Your task to perform on an android device: open app "Facebook Messenger" (install if not already installed) Image 0: 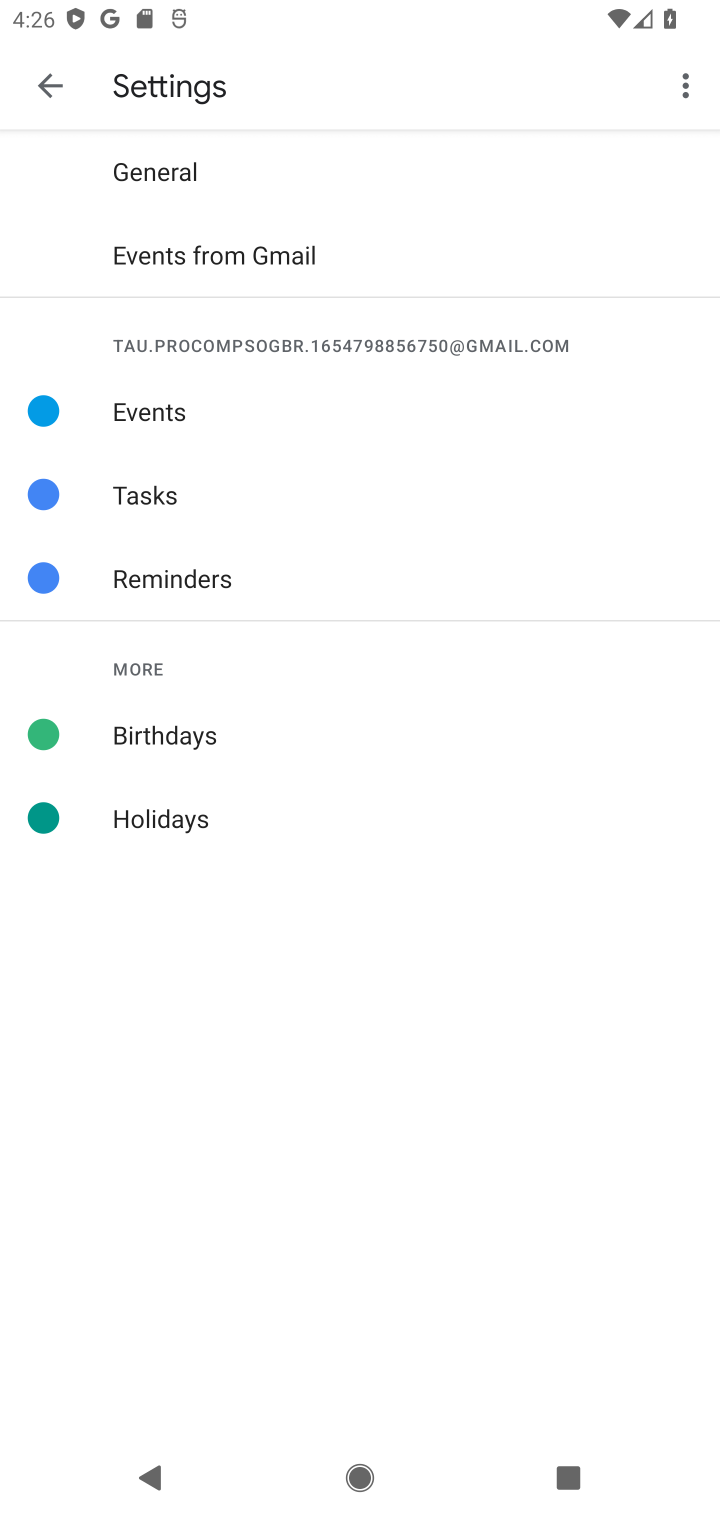
Step 0: press home button
Your task to perform on an android device: open app "Facebook Messenger" (install if not already installed) Image 1: 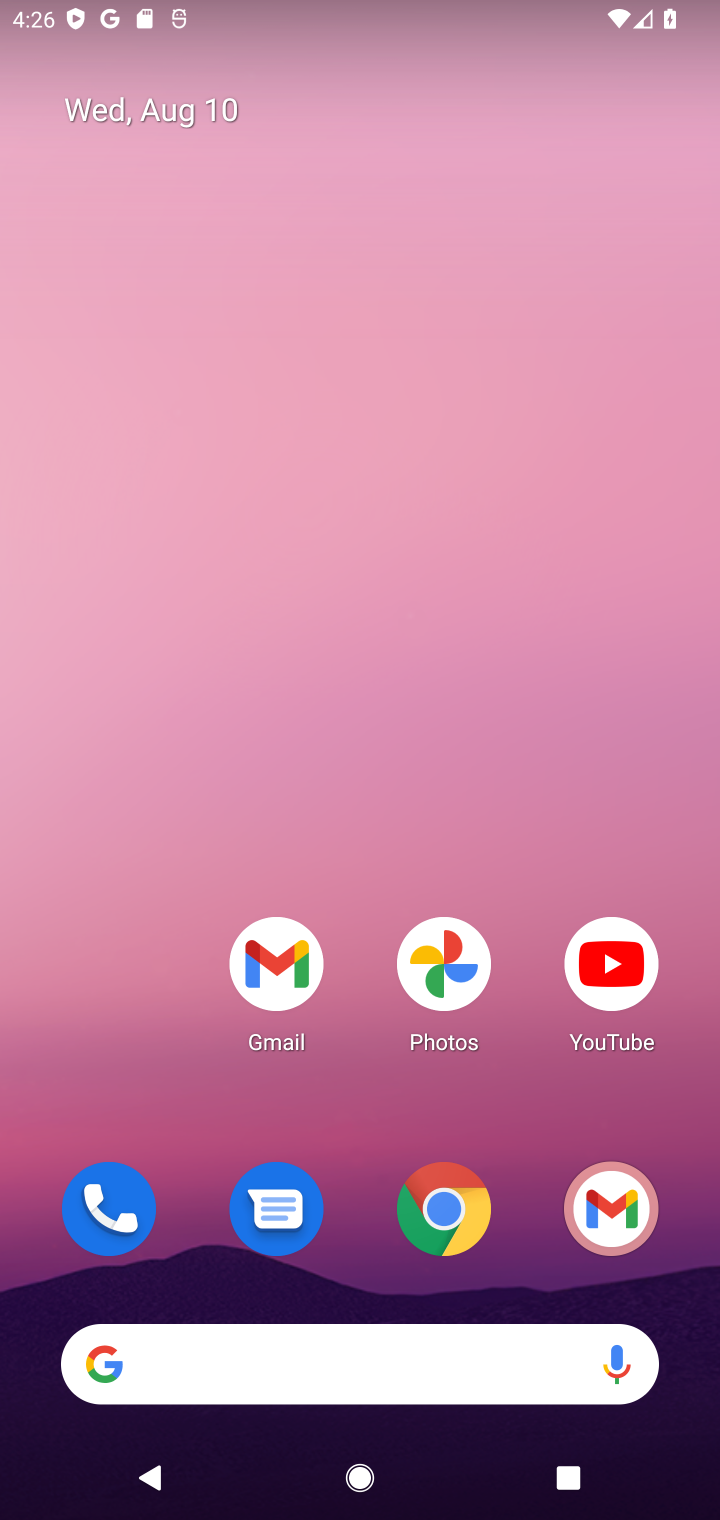
Step 1: drag from (358, 1283) to (360, 142)
Your task to perform on an android device: open app "Facebook Messenger" (install if not already installed) Image 2: 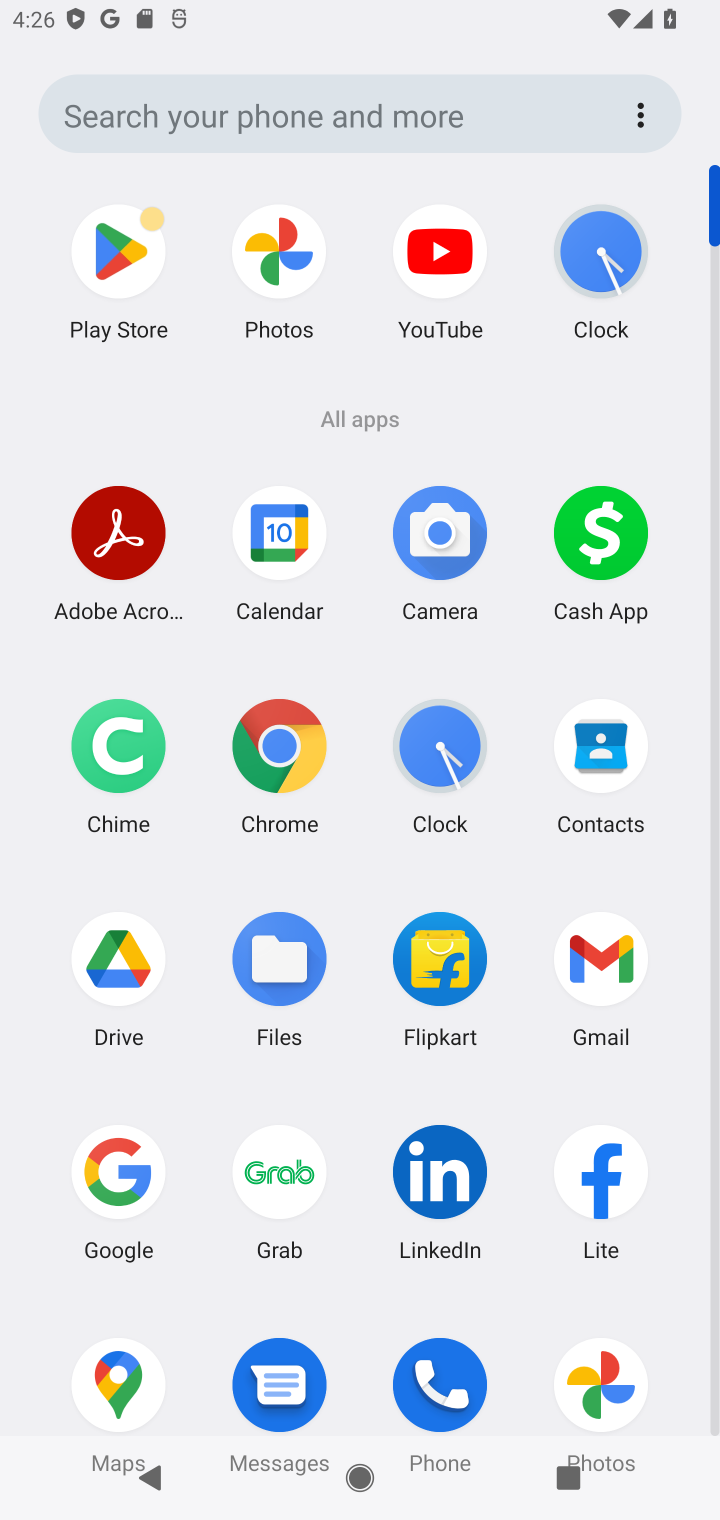
Step 2: click (131, 304)
Your task to perform on an android device: open app "Facebook Messenger" (install if not already installed) Image 3: 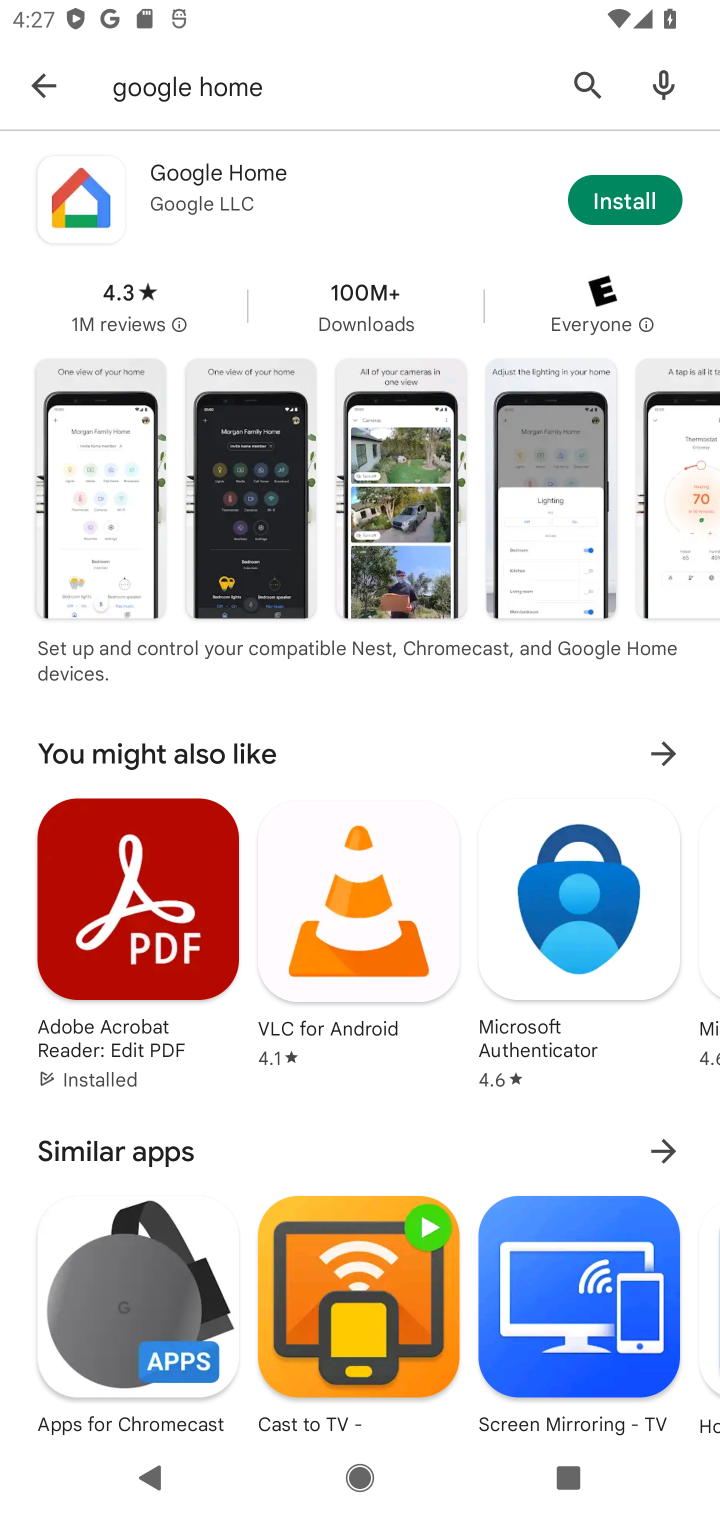
Step 3: click (580, 113)
Your task to perform on an android device: open app "Facebook Messenger" (install if not already installed) Image 4: 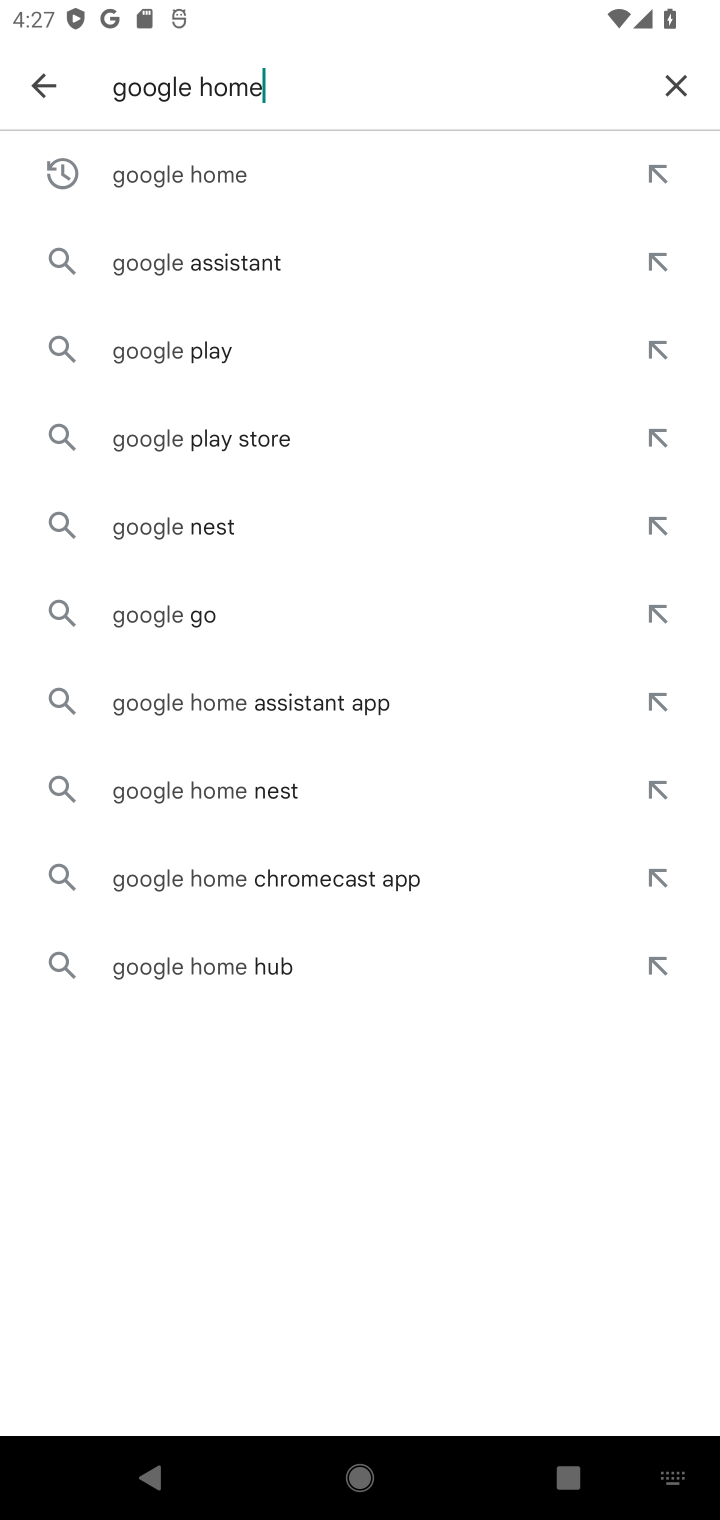
Step 4: click (675, 106)
Your task to perform on an android device: open app "Facebook Messenger" (install if not already installed) Image 5: 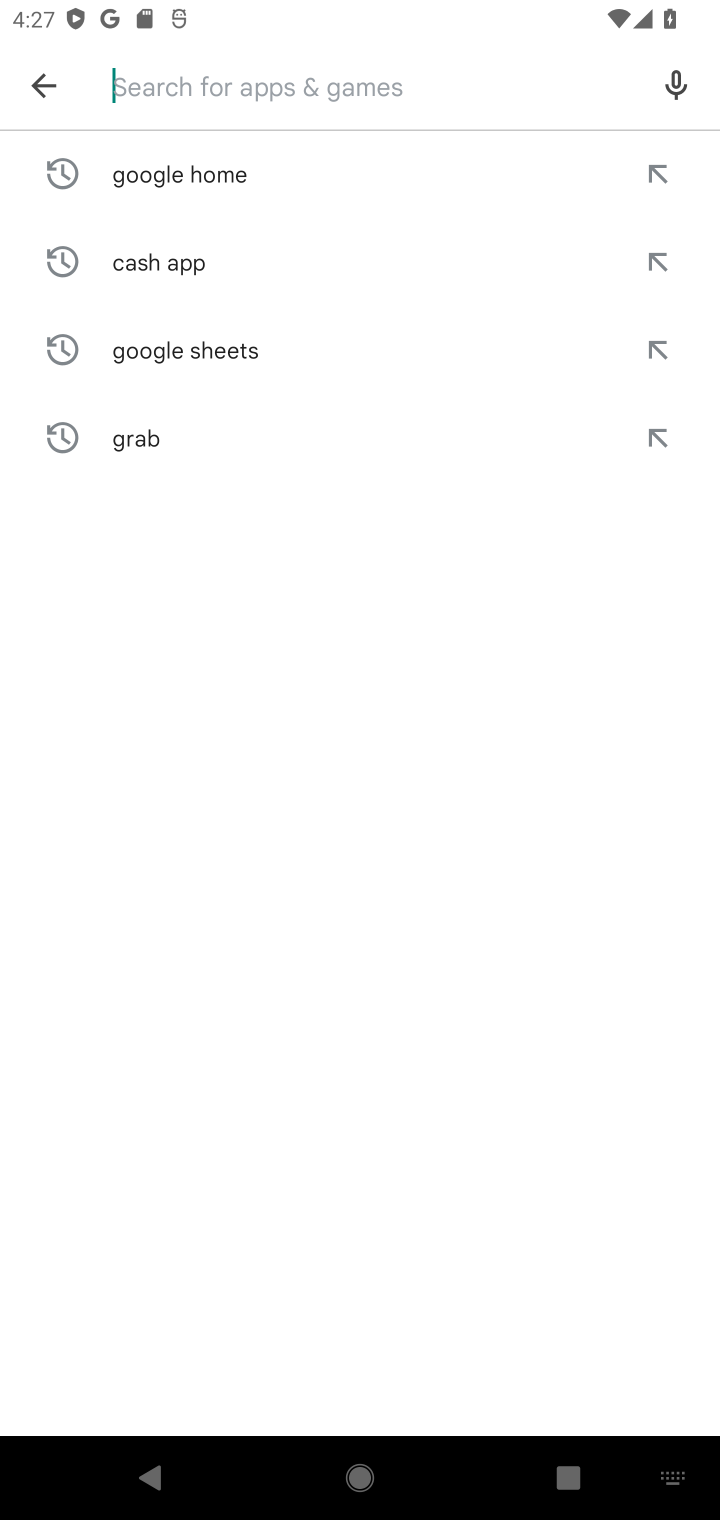
Step 5: type "facebook.com"
Your task to perform on an android device: open app "Facebook Messenger" (install if not already installed) Image 6: 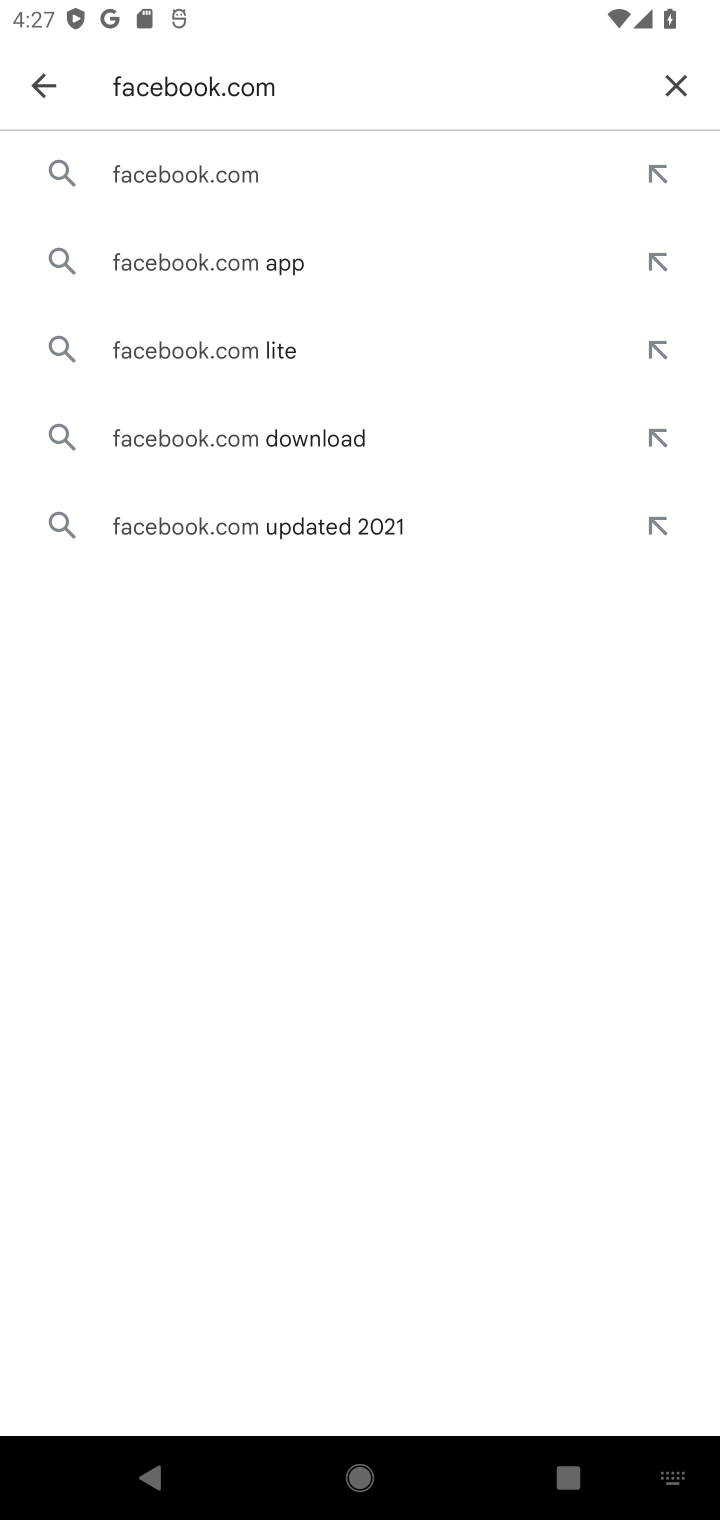
Step 6: click (302, 142)
Your task to perform on an android device: open app "Facebook Messenger" (install if not already installed) Image 7: 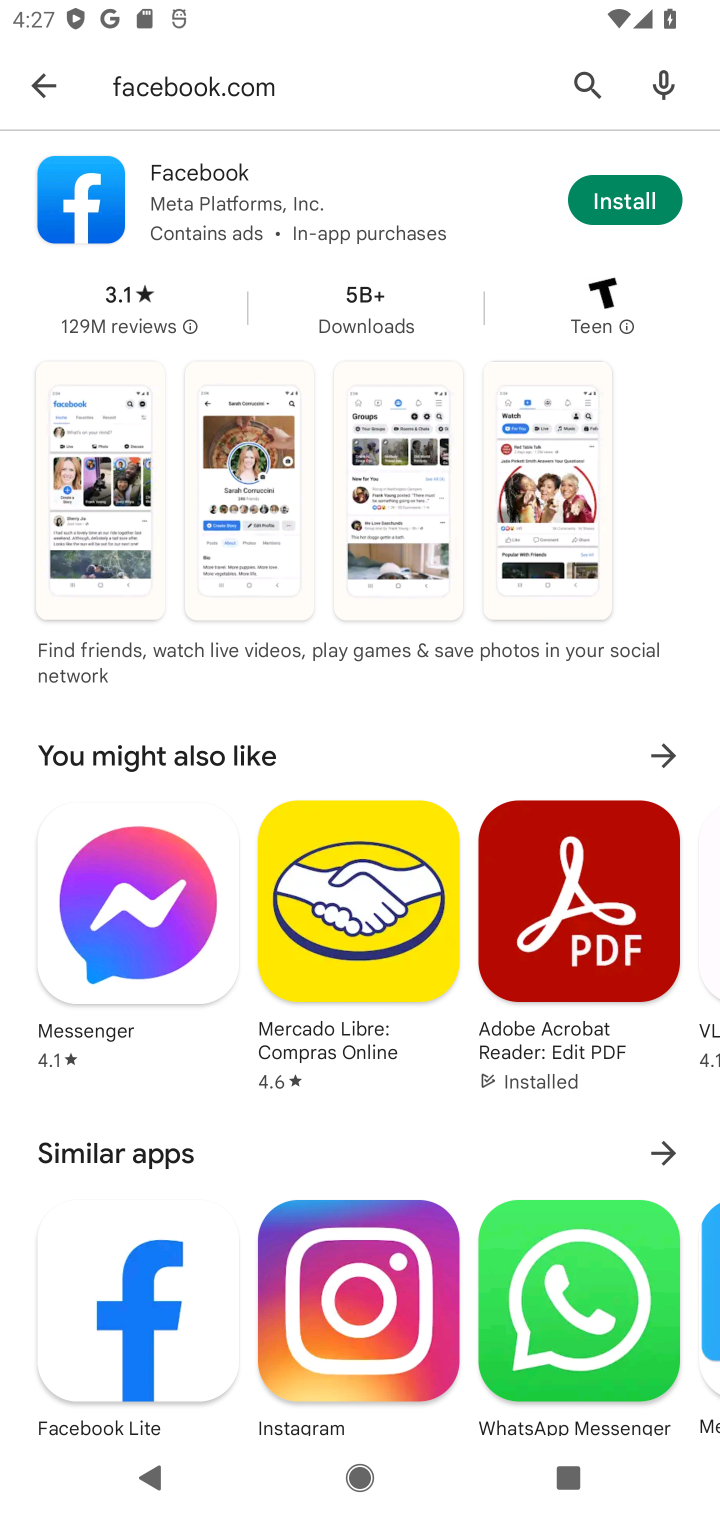
Step 7: click (591, 196)
Your task to perform on an android device: open app "Facebook Messenger" (install if not already installed) Image 8: 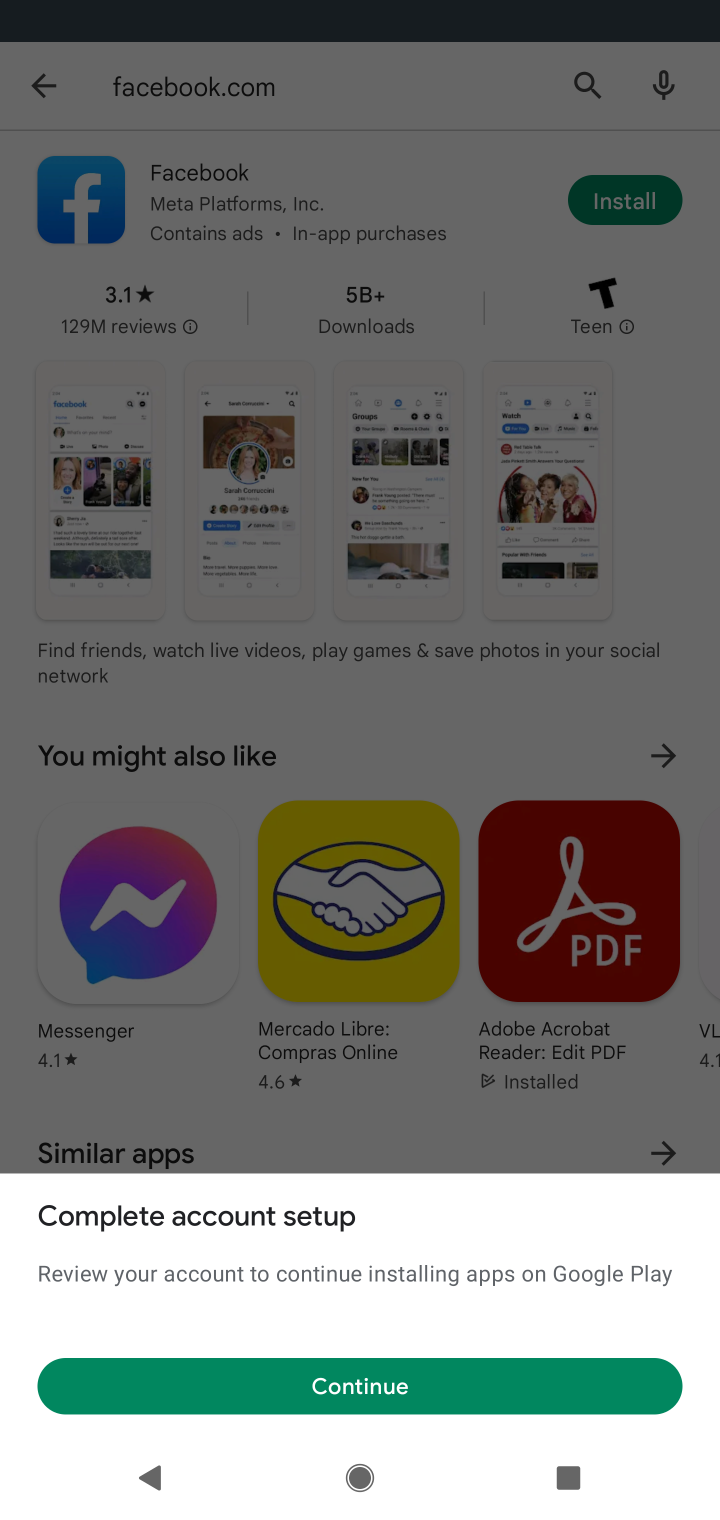
Step 8: click (416, 1395)
Your task to perform on an android device: open app "Facebook Messenger" (install if not already installed) Image 9: 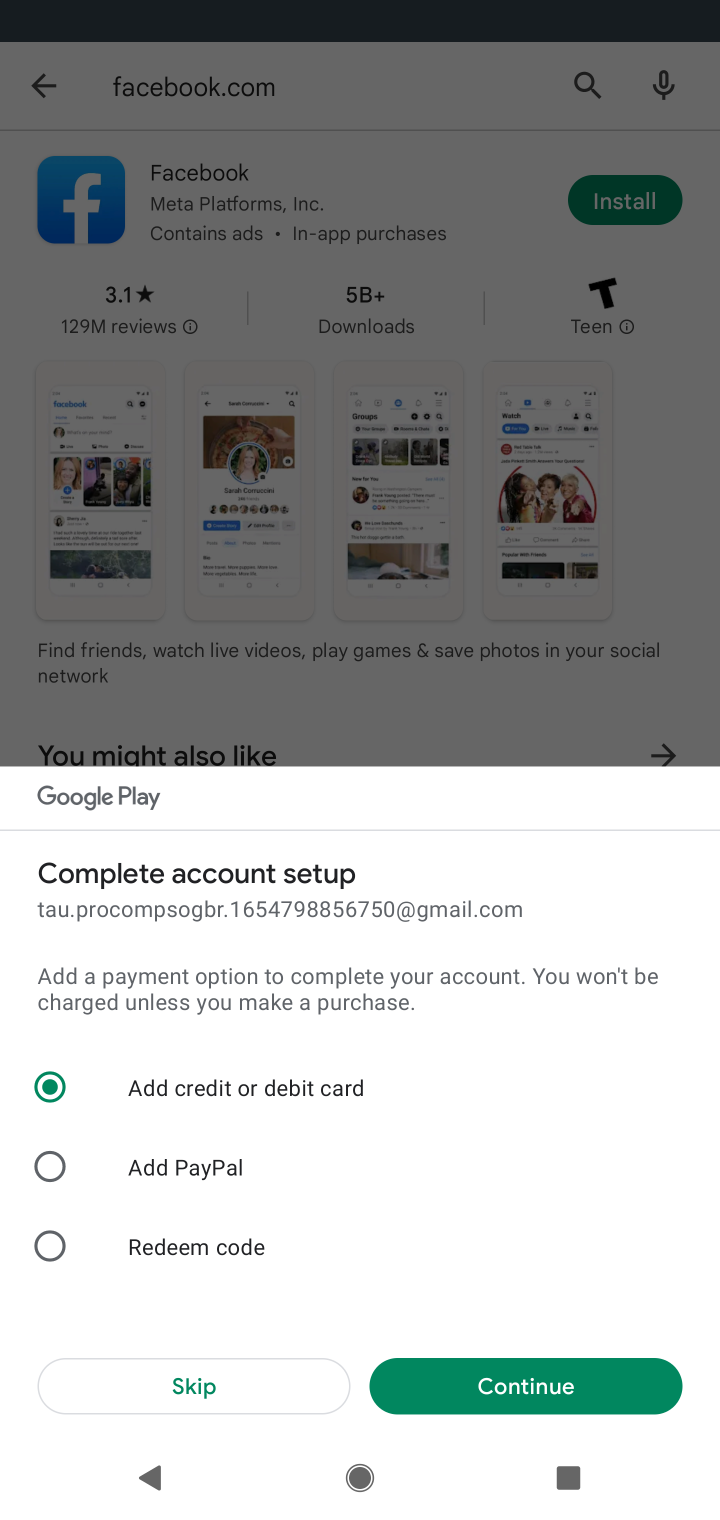
Step 9: click (247, 1402)
Your task to perform on an android device: open app "Facebook Messenger" (install if not already installed) Image 10: 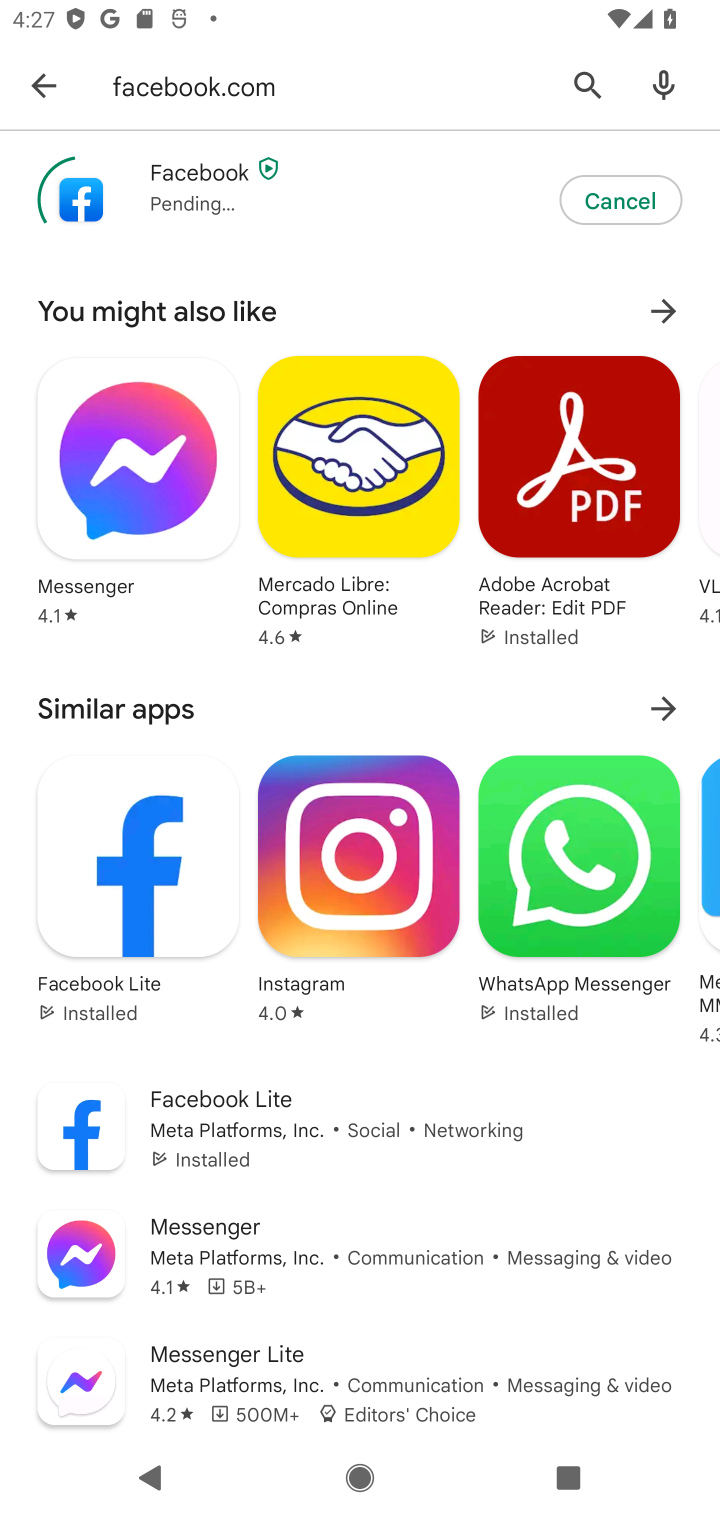
Step 10: task complete